Your task to perform on an android device: Open network settings Image 0: 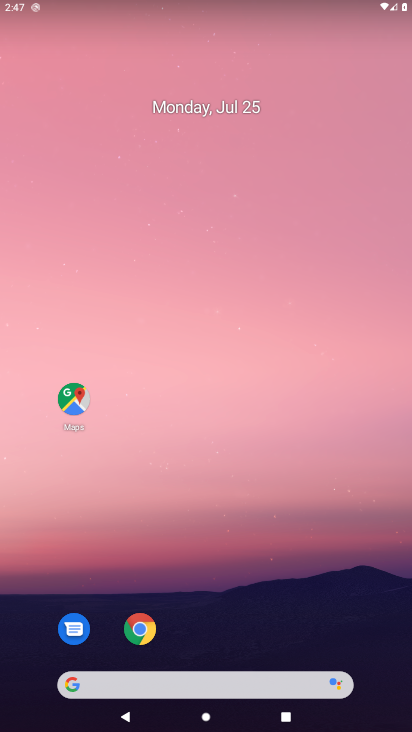
Step 0: drag from (78, 600) to (212, 90)
Your task to perform on an android device: Open network settings Image 1: 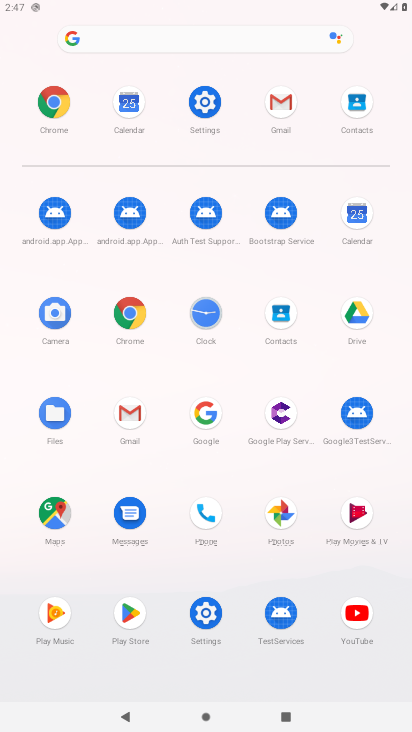
Step 1: click (200, 608)
Your task to perform on an android device: Open network settings Image 2: 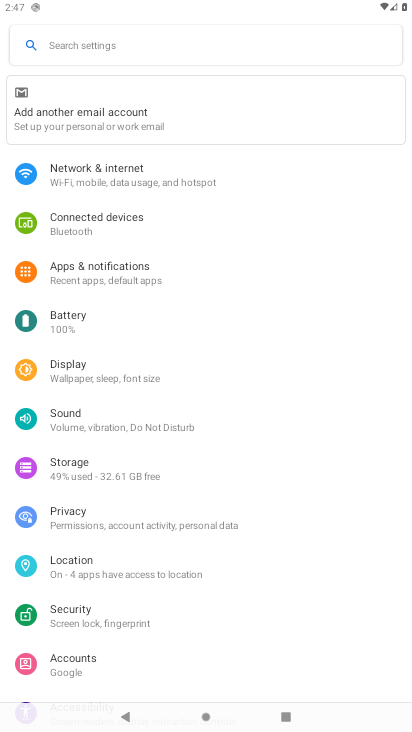
Step 2: task complete